Your task to perform on an android device: Open calendar and show me the fourth week of next month Image 0: 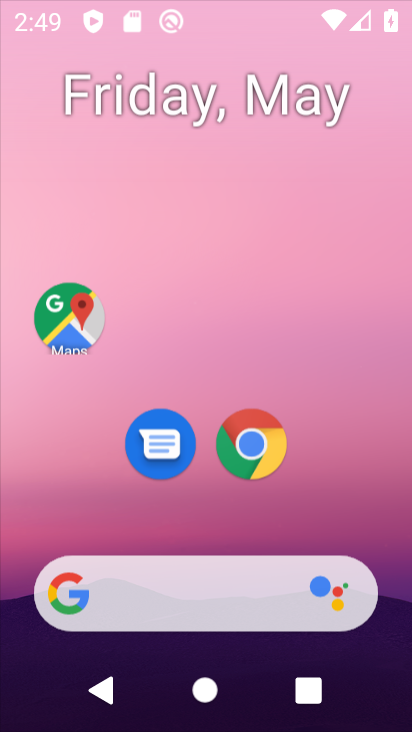
Step 0: click (101, 83)
Your task to perform on an android device: Open calendar and show me the fourth week of next month Image 1: 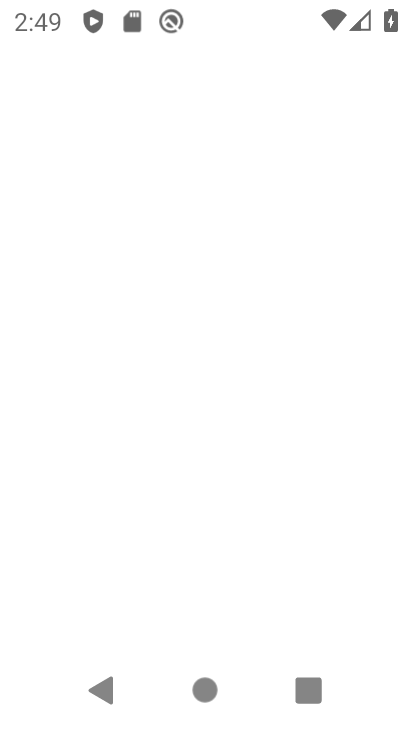
Step 1: drag from (268, 535) to (214, 5)
Your task to perform on an android device: Open calendar and show me the fourth week of next month Image 2: 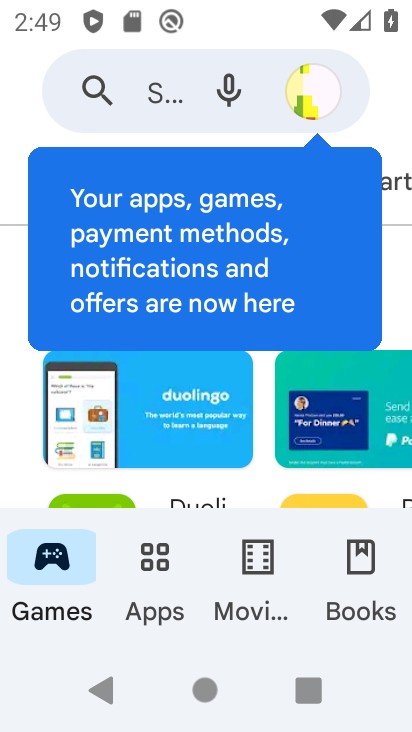
Step 2: press back button
Your task to perform on an android device: Open calendar and show me the fourth week of next month Image 3: 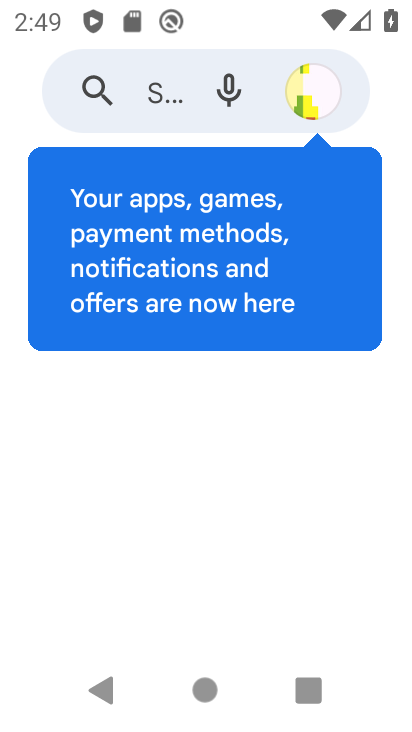
Step 3: press back button
Your task to perform on an android device: Open calendar and show me the fourth week of next month Image 4: 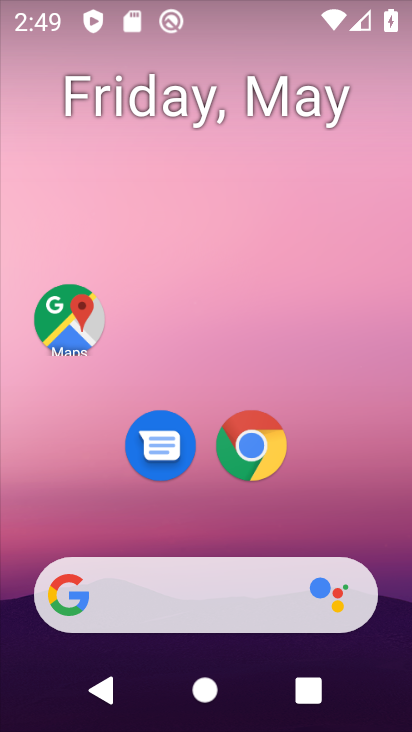
Step 4: drag from (374, 518) to (213, 0)
Your task to perform on an android device: Open calendar and show me the fourth week of next month Image 5: 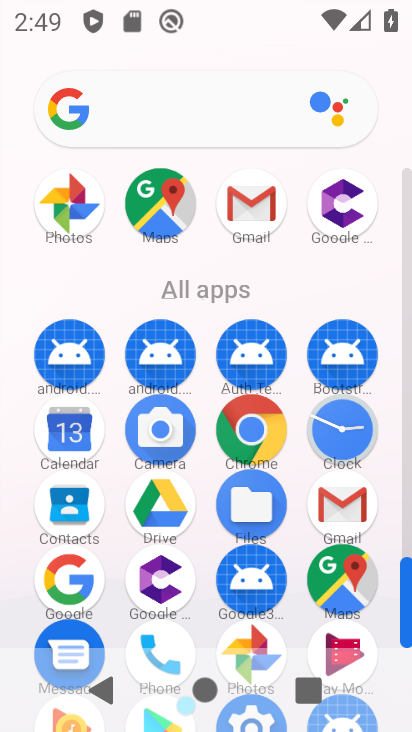
Step 5: click (32, 439)
Your task to perform on an android device: Open calendar and show me the fourth week of next month Image 6: 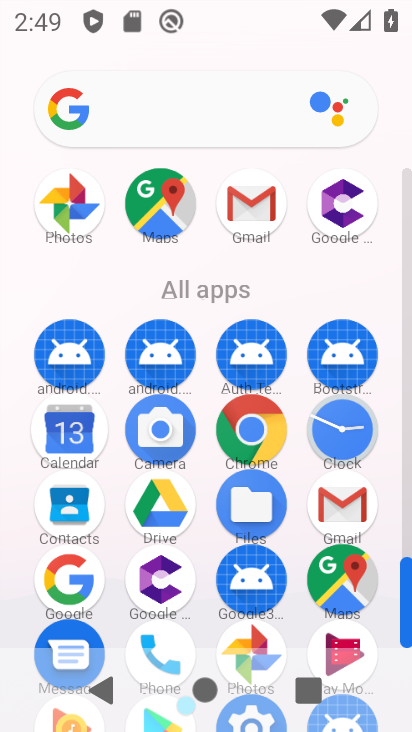
Step 6: click (52, 434)
Your task to perform on an android device: Open calendar and show me the fourth week of next month Image 7: 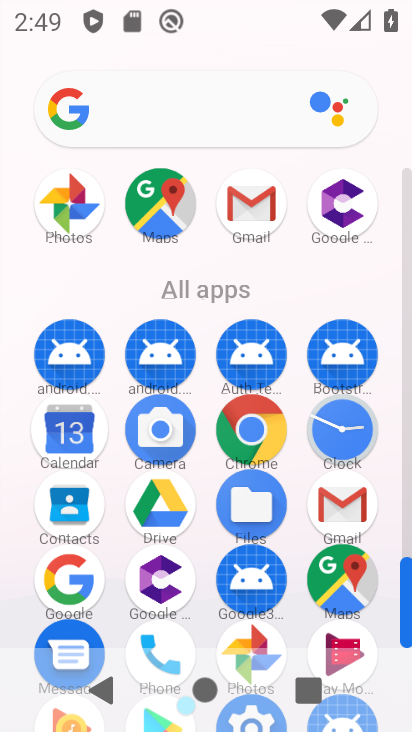
Step 7: click (62, 427)
Your task to perform on an android device: Open calendar and show me the fourth week of next month Image 8: 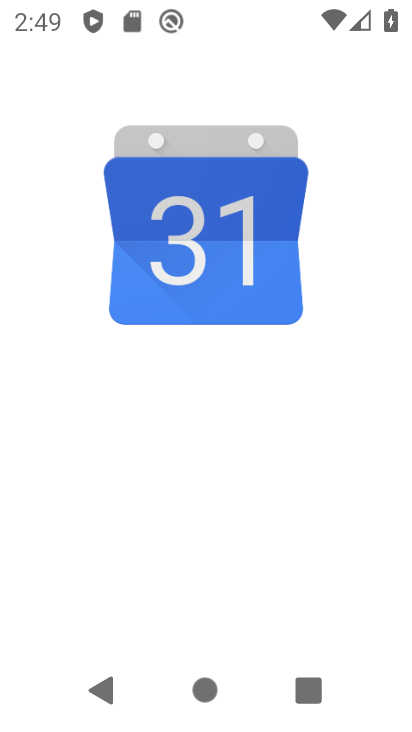
Step 8: click (65, 428)
Your task to perform on an android device: Open calendar and show me the fourth week of next month Image 9: 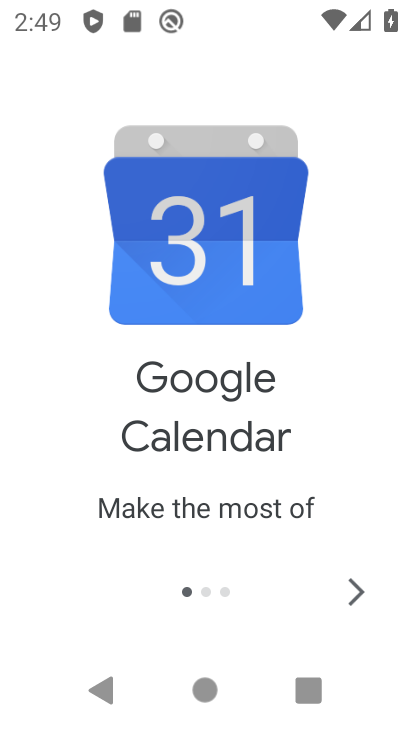
Step 9: click (352, 598)
Your task to perform on an android device: Open calendar and show me the fourth week of next month Image 10: 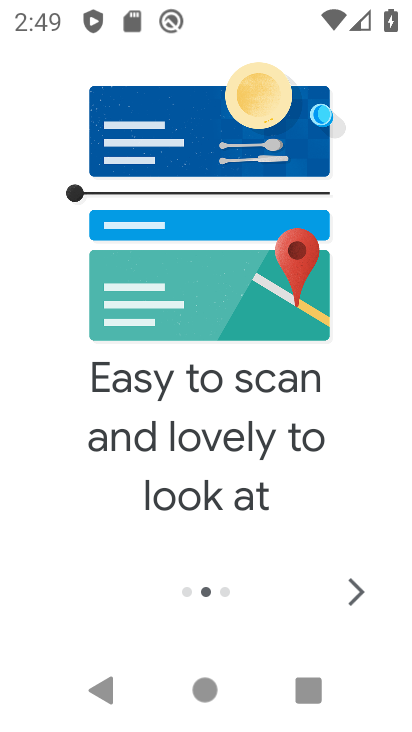
Step 10: click (352, 598)
Your task to perform on an android device: Open calendar and show me the fourth week of next month Image 11: 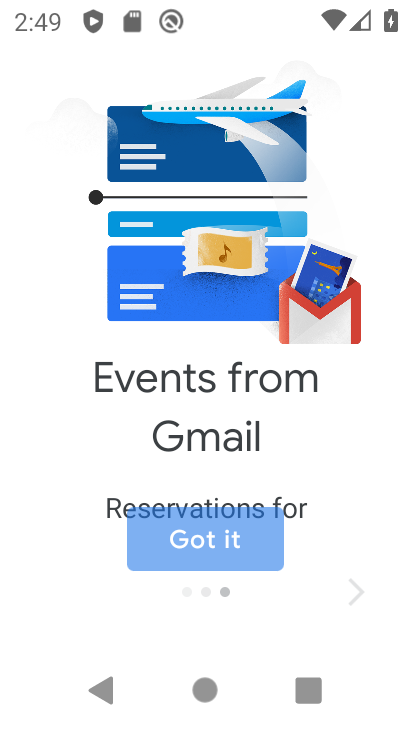
Step 11: click (352, 589)
Your task to perform on an android device: Open calendar and show me the fourth week of next month Image 12: 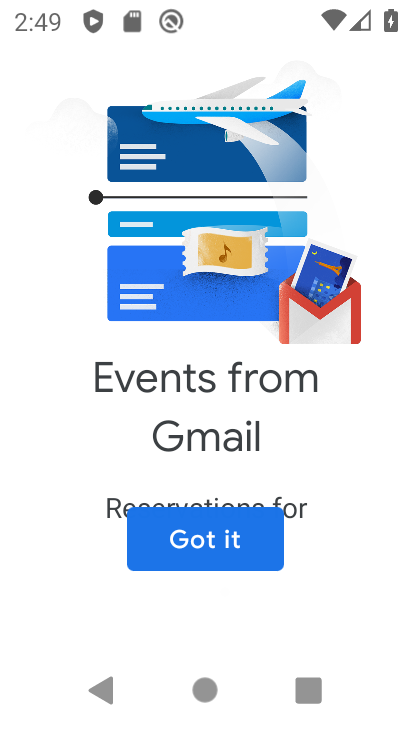
Step 12: click (352, 589)
Your task to perform on an android device: Open calendar and show me the fourth week of next month Image 13: 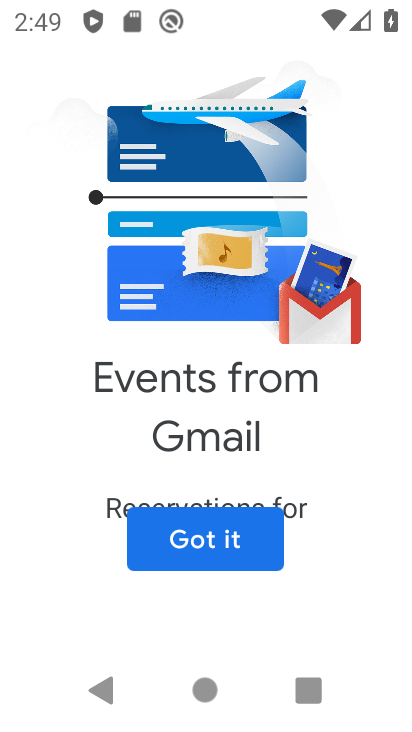
Step 13: click (226, 542)
Your task to perform on an android device: Open calendar and show me the fourth week of next month Image 14: 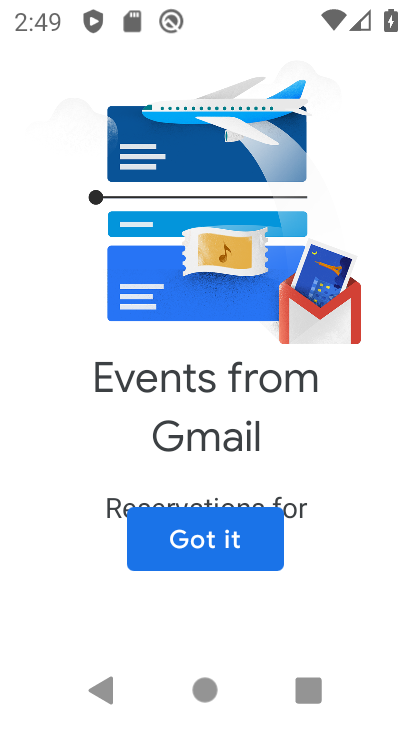
Step 14: click (226, 542)
Your task to perform on an android device: Open calendar and show me the fourth week of next month Image 15: 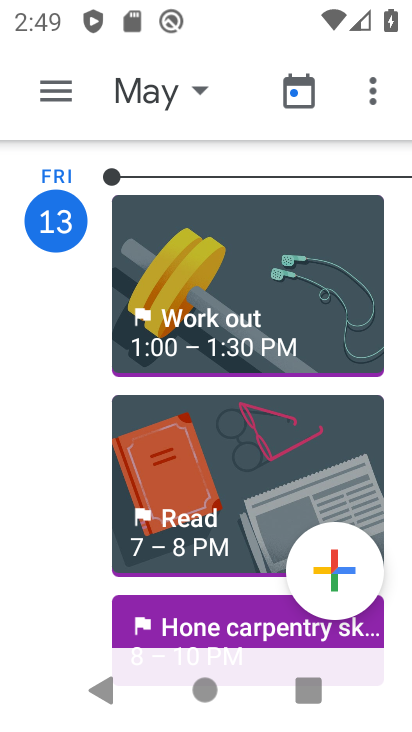
Step 15: drag from (189, 489) to (143, 95)
Your task to perform on an android device: Open calendar and show me the fourth week of next month Image 16: 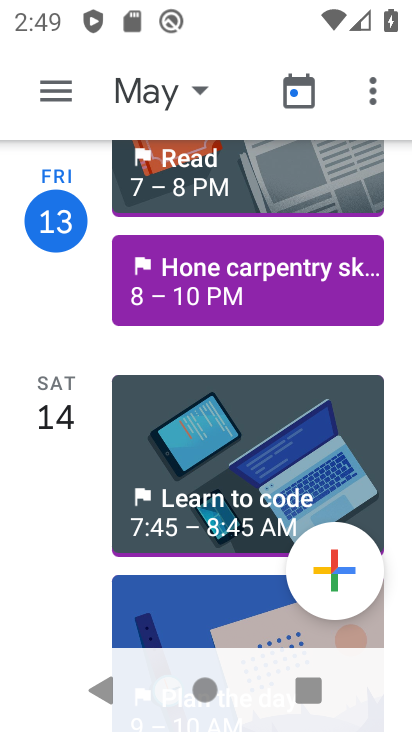
Step 16: click (194, 97)
Your task to perform on an android device: Open calendar and show me the fourth week of next month Image 17: 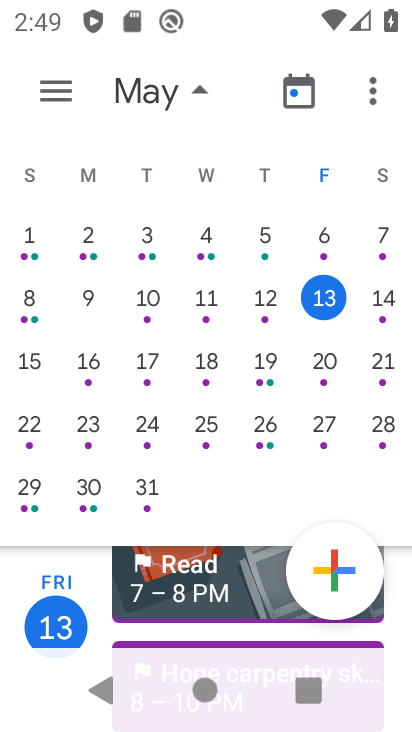
Step 17: drag from (337, 256) to (103, 316)
Your task to perform on an android device: Open calendar and show me the fourth week of next month Image 18: 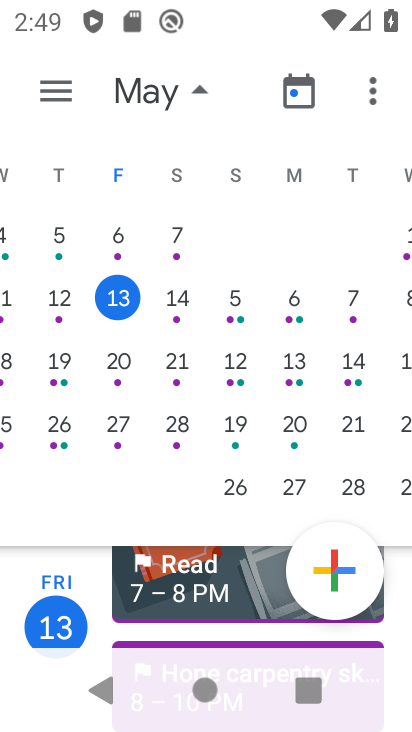
Step 18: drag from (309, 284) to (5, 326)
Your task to perform on an android device: Open calendar and show me the fourth week of next month Image 19: 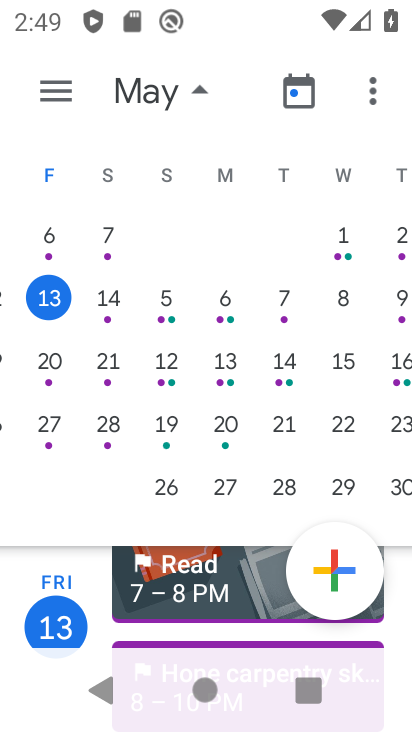
Step 19: drag from (373, 314) to (48, 276)
Your task to perform on an android device: Open calendar and show me the fourth week of next month Image 20: 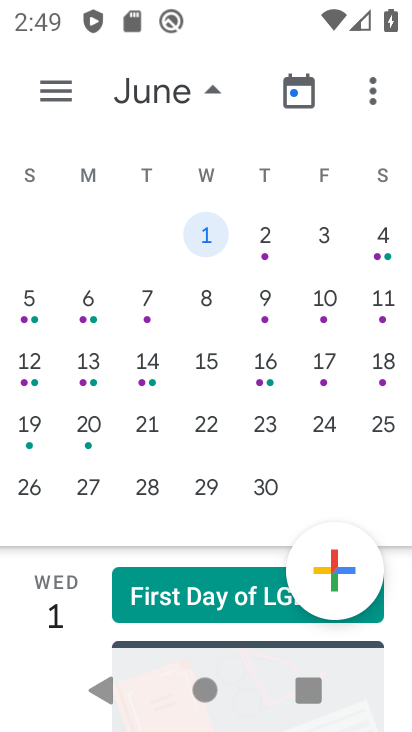
Step 20: drag from (255, 271) to (17, 308)
Your task to perform on an android device: Open calendar and show me the fourth week of next month Image 21: 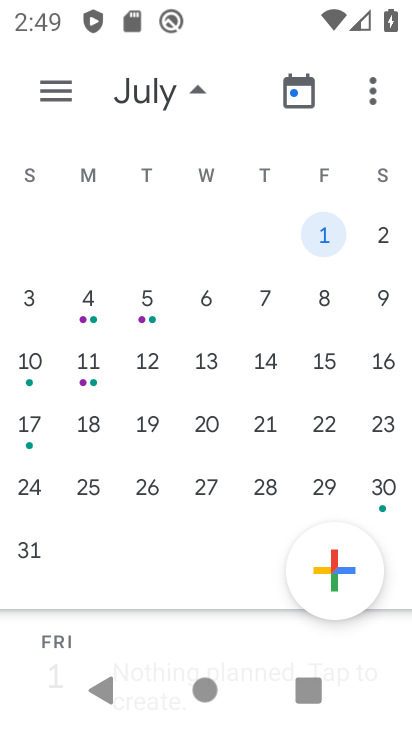
Step 21: drag from (59, 339) to (295, 392)
Your task to perform on an android device: Open calendar and show me the fourth week of next month Image 22: 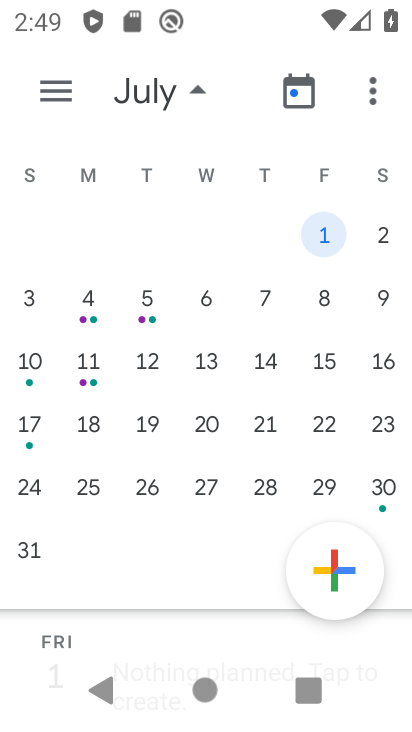
Step 22: drag from (120, 407) to (370, 385)
Your task to perform on an android device: Open calendar and show me the fourth week of next month Image 23: 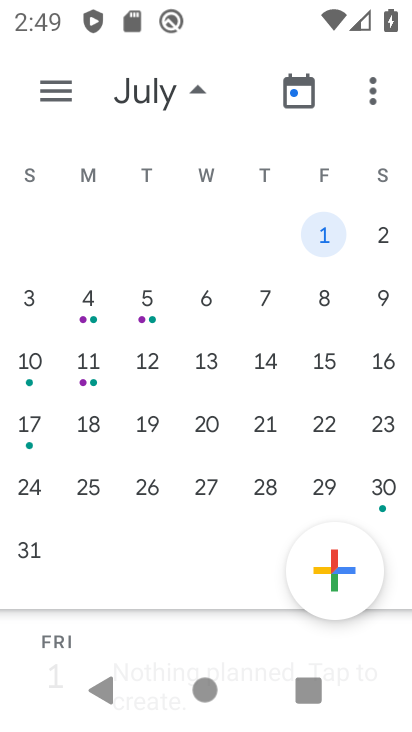
Step 23: drag from (134, 374) to (398, 459)
Your task to perform on an android device: Open calendar and show me the fourth week of next month Image 24: 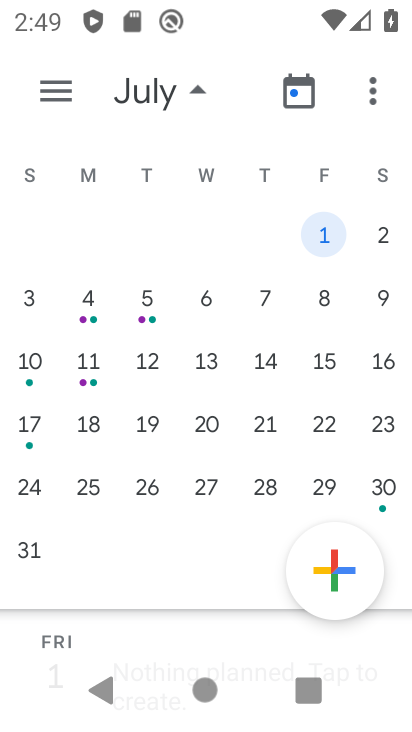
Step 24: drag from (89, 389) to (368, 399)
Your task to perform on an android device: Open calendar and show me the fourth week of next month Image 25: 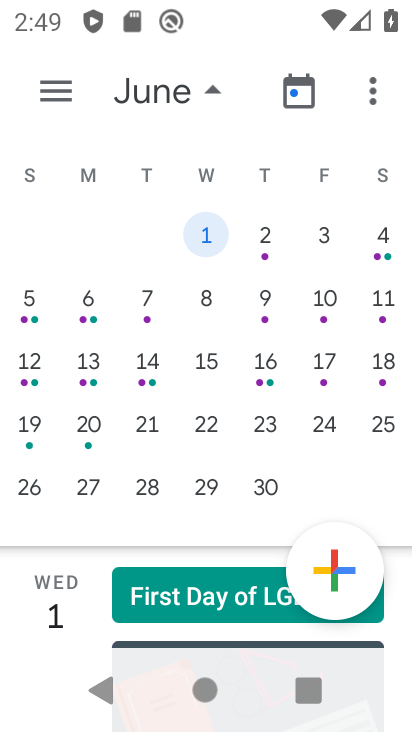
Step 25: click (195, 426)
Your task to perform on an android device: Open calendar and show me the fourth week of next month Image 26: 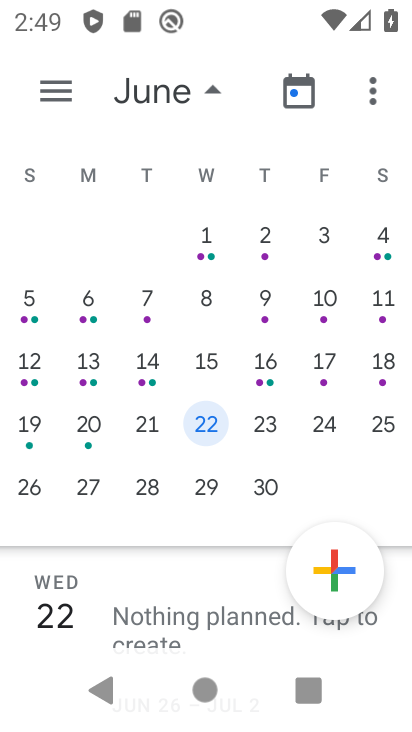
Step 26: click (202, 425)
Your task to perform on an android device: Open calendar and show me the fourth week of next month Image 27: 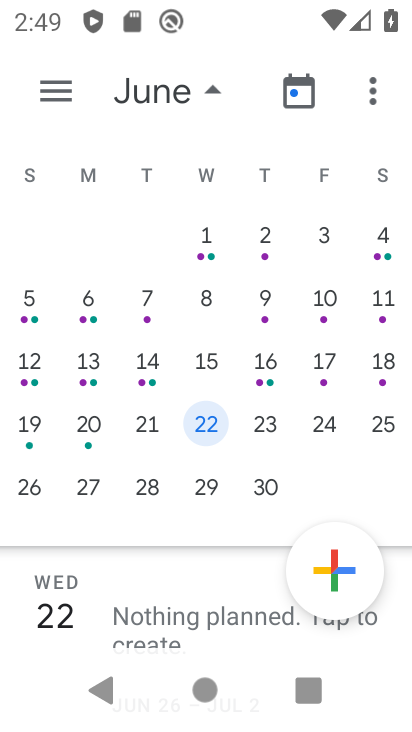
Step 27: click (203, 425)
Your task to perform on an android device: Open calendar and show me the fourth week of next month Image 28: 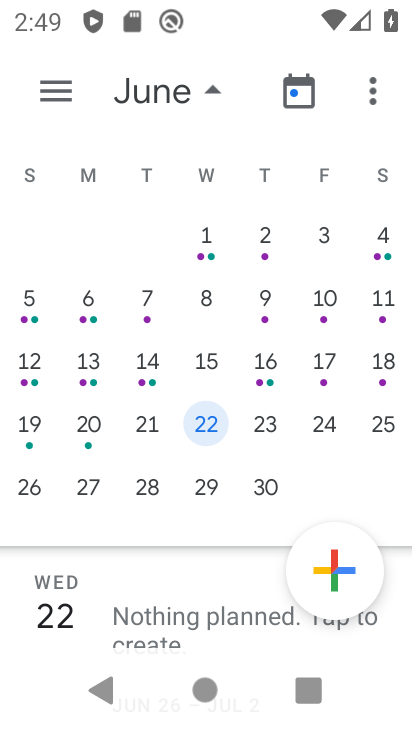
Step 28: task complete